Your task to perform on an android device: check storage Image 0: 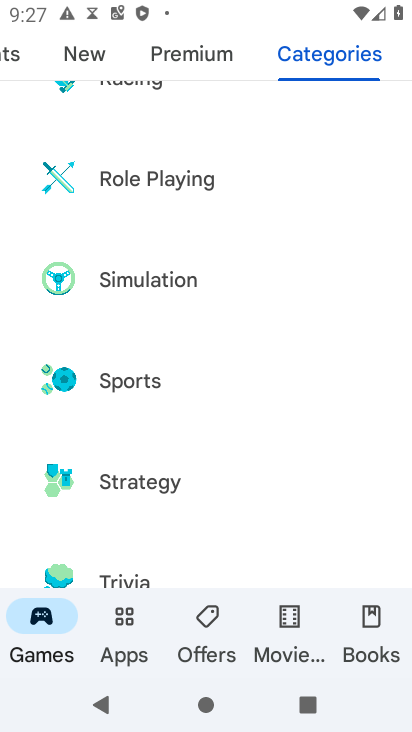
Step 0: press home button
Your task to perform on an android device: check storage Image 1: 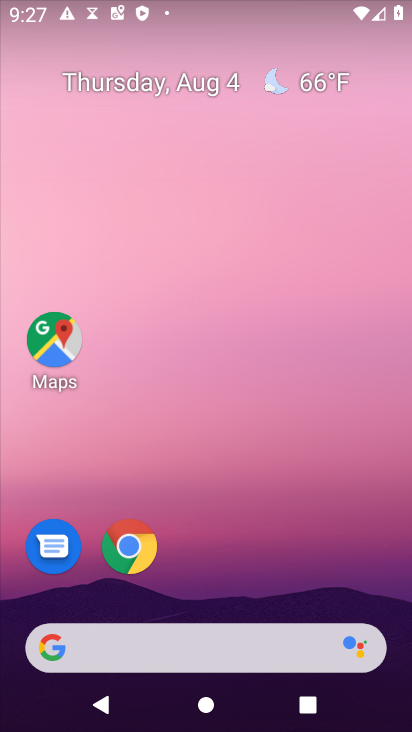
Step 1: drag from (230, 584) to (275, 135)
Your task to perform on an android device: check storage Image 2: 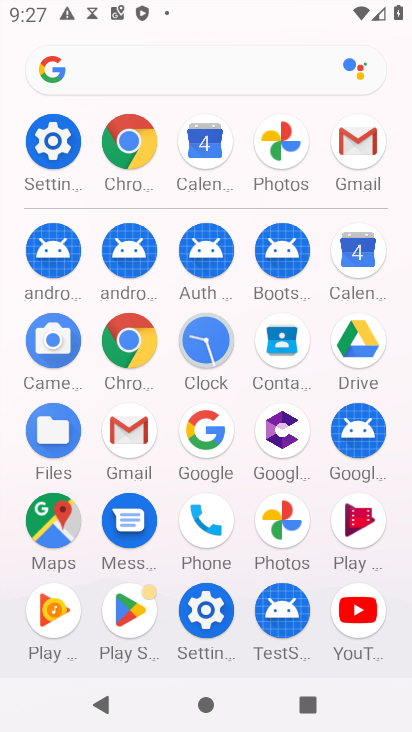
Step 2: click (43, 148)
Your task to perform on an android device: check storage Image 3: 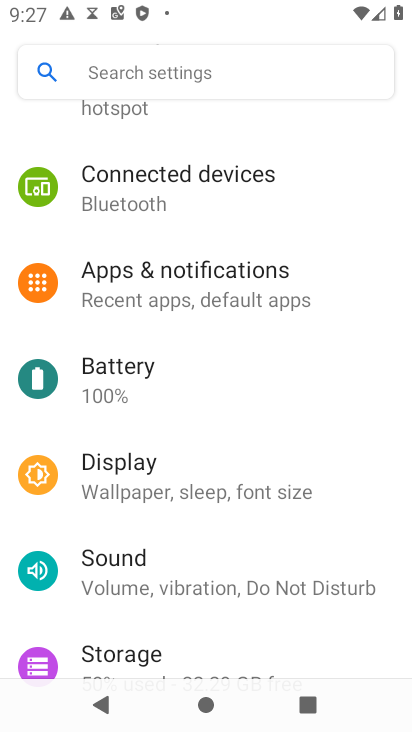
Step 3: click (106, 663)
Your task to perform on an android device: check storage Image 4: 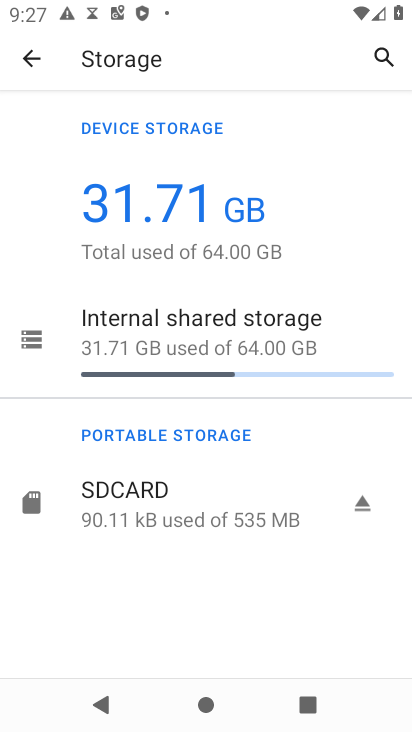
Step 4: task complete